Your task to perform on an android device: turn on bluetooth scan Image 0: 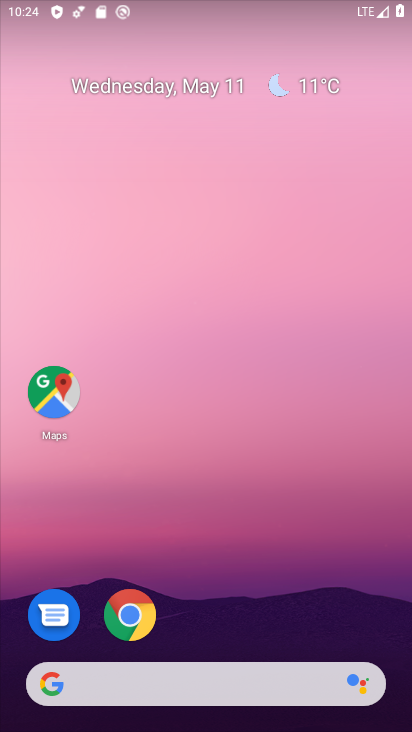
Step 0: drag from (276, 553) to (288, 51)
Your task to perform on an android device: turn on bluetooth scan Image 1: 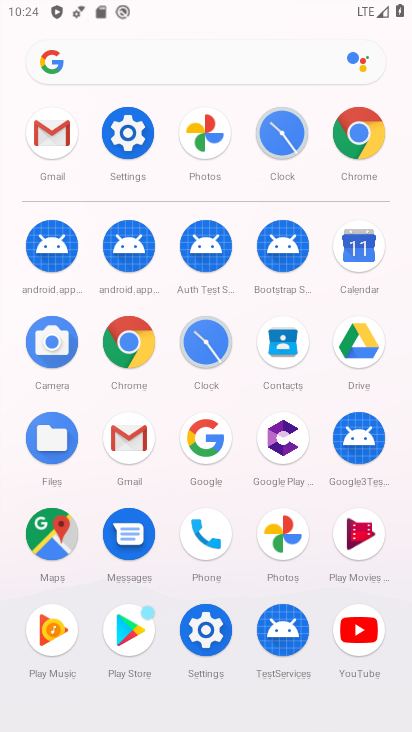
Step 1: click (131, 136)
Your task to perform on an android device: turn on bluetooth scan Image 2: 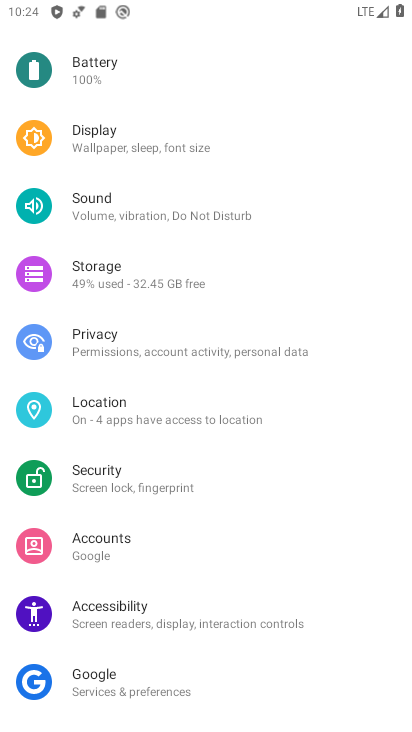
Step 2: drag from (176, 544) to (225, 105)
Your task to perform on an android device: turn on bluetooth scan Image 3: 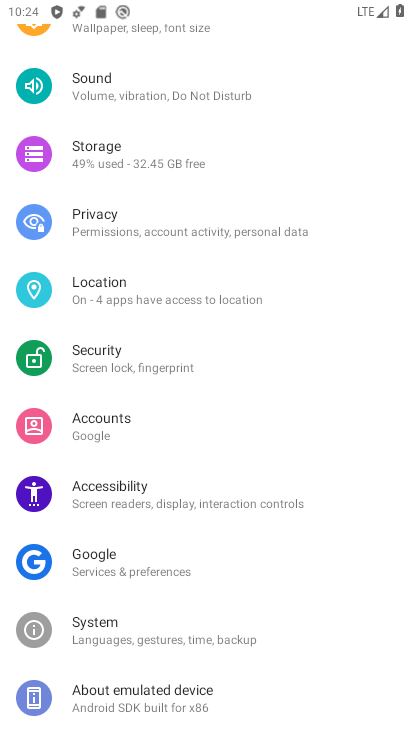
Step 3: click (115, 290)
Your task to perform on an android device: turn on bluetooth scan Image 4: 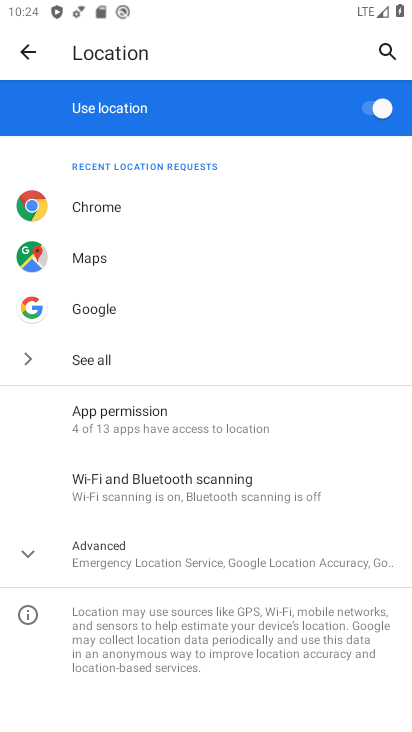
Step 4: click (132, 492)
Your task to perform on an android device: turn on bluetooth scan Image 5: 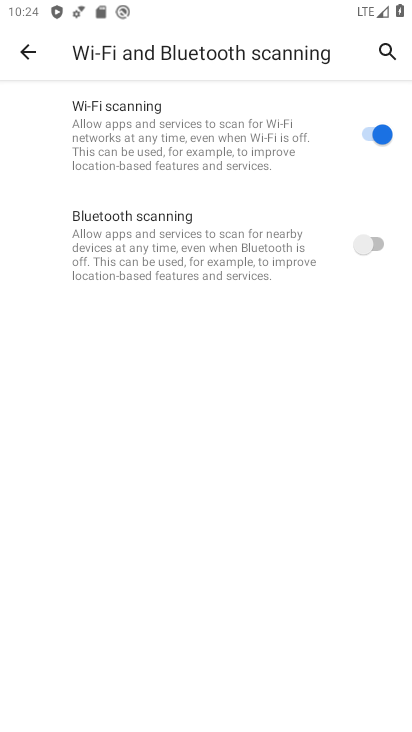
Step 5: click (338, 253)
Your task to perform on an android device: turn on bluetooth scan Image 6: 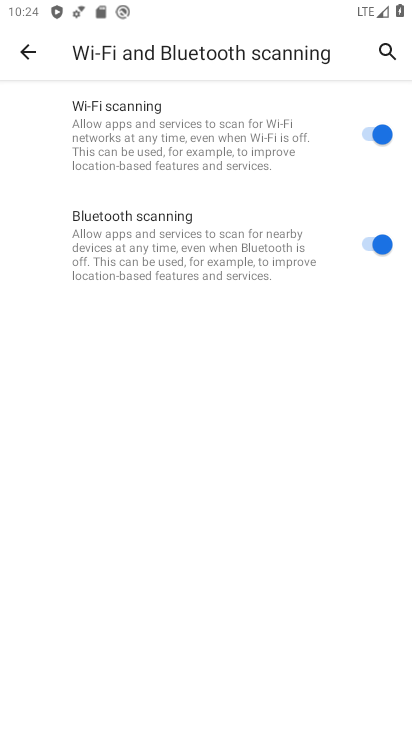
Step 6: task complete